Your task to perform on an android device: Open Amazon Image 0: 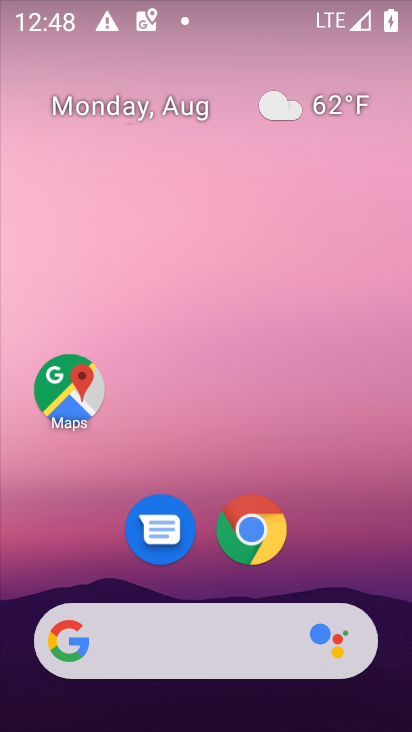
Step 0: click (236, 541)
Your task to perform on an android device: Open Amazon Image 1: 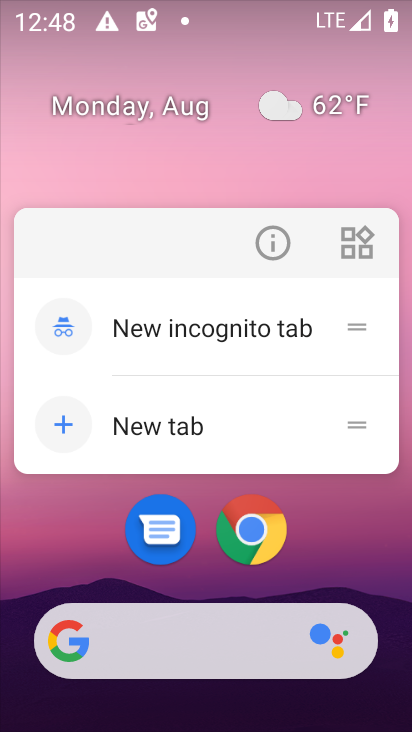
Step 1: drag from (201, 612) to (200, 123)
Your task to perform on an android device: Open Amazon Image 2: 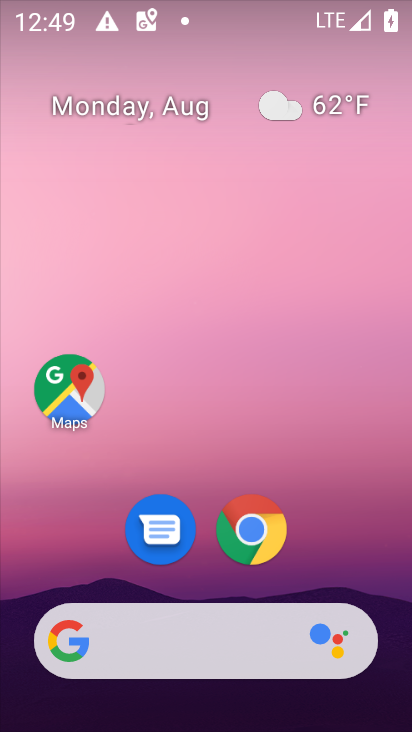
Step 2: drag from (161, 556) to (197, 194)
Your task to perform on an android device: Open Amazon Image 3: 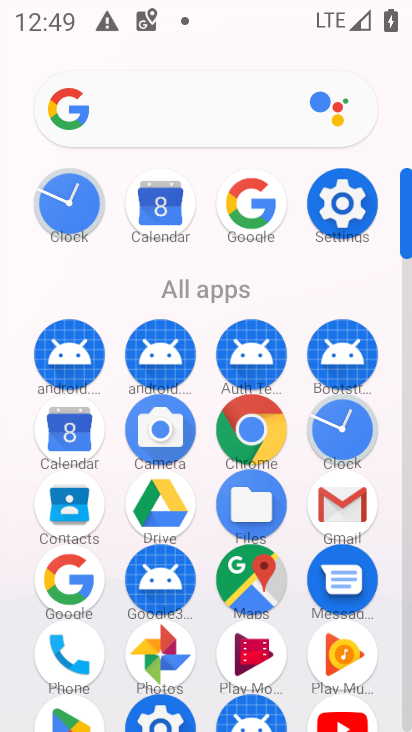
Step 3: click (245, 211)
Your task to perform on an android device: Open Amazon Image 4: 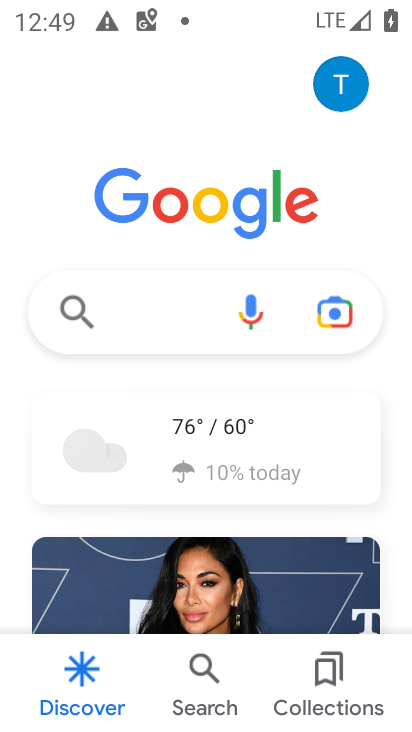
Step 4: click (162, 325)
Your task to perform on an android device: Open Amazon Image 5: 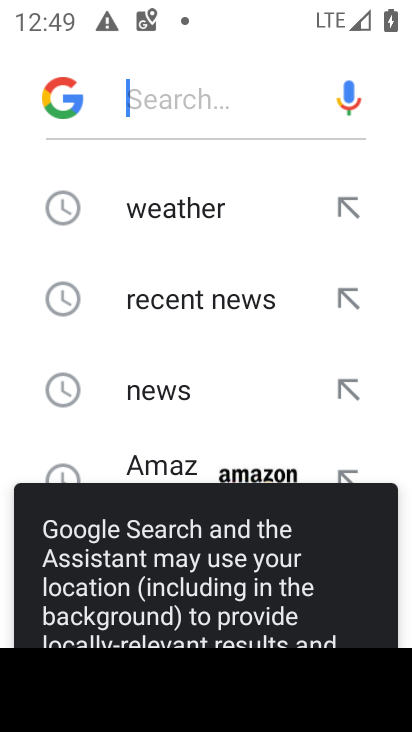
Step 5: click (151, 464)
Your task to perform on an android device: Open Amazon Image 6: 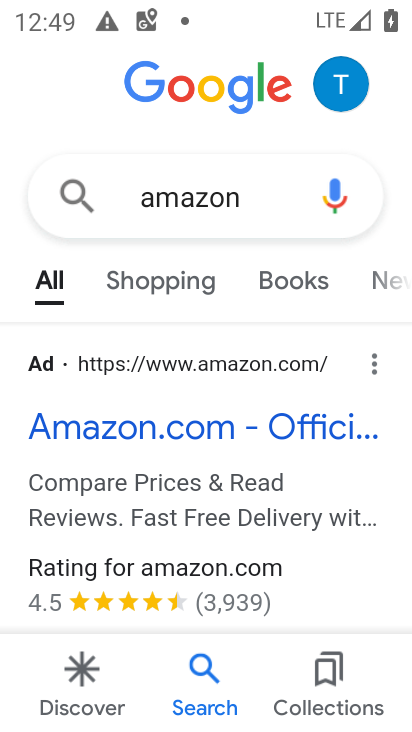
Step 6: click (124, 429)
Your task to perform on an android device: Open Amazon Image 7: 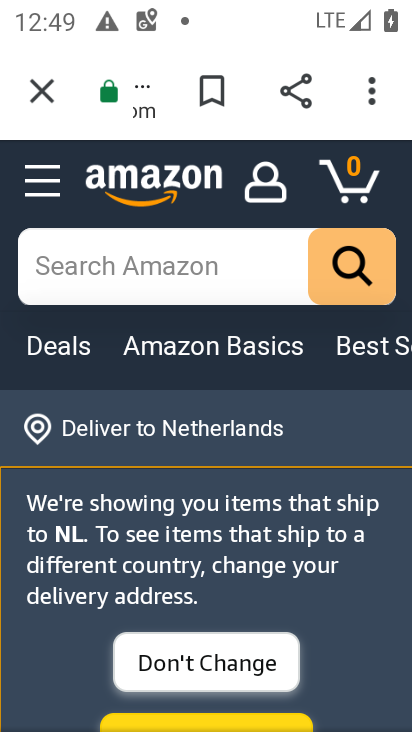
Step 7: task complete